Your task to perform on an android device: turn on the 12-hour format for clock Image 0: 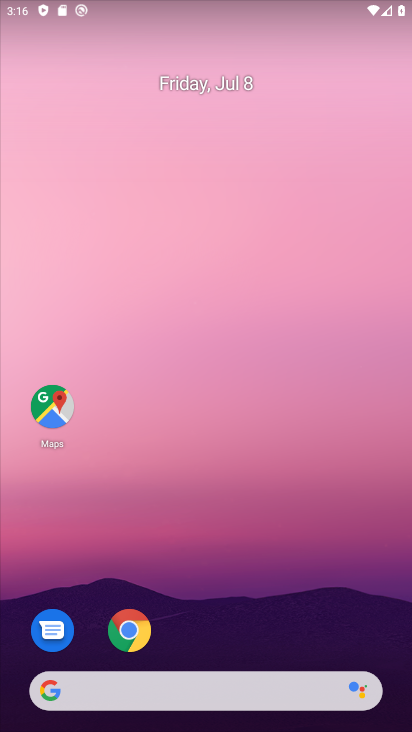
Step 0: drag from (205, 661) to (203, 74)
Your task to perform on an android device: turn on the 12-hour format for clock Image 1: 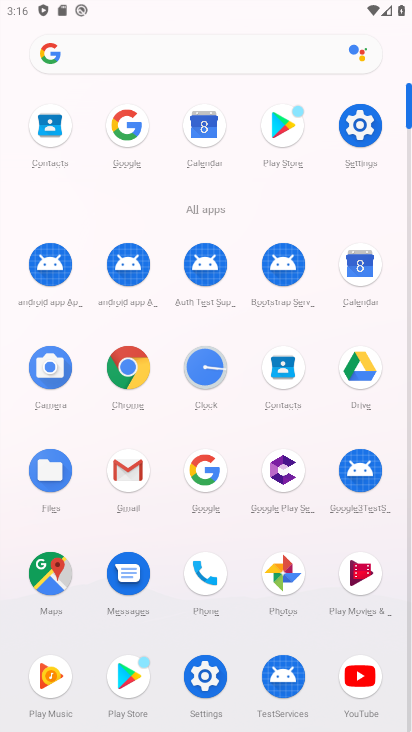
Step 1: click (204, 366)
Your task to perform on an android device: turn on the 12-hour format for clock Image 2: 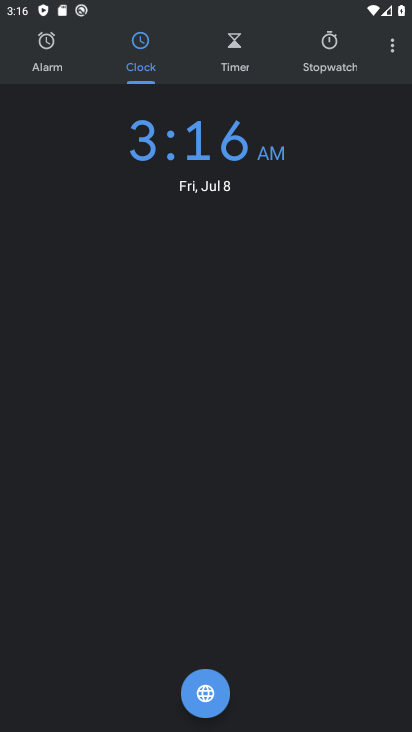
Step 2: click (395, 47)
Your task to perform on an android device: turn on the 12-hour format for clock Image 3: 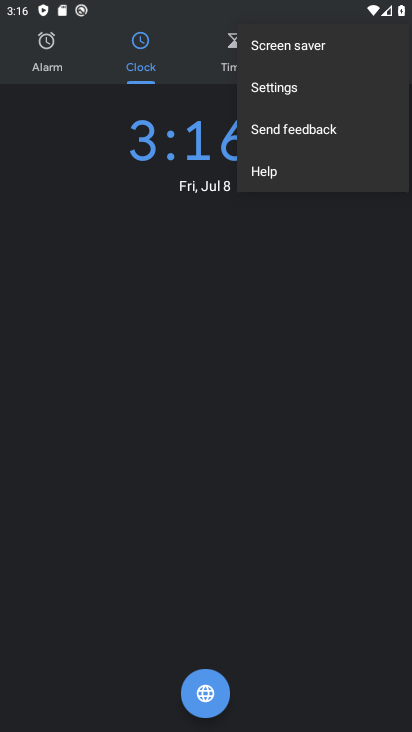
Step 3: click (291, 91)
Your task to perform on an android device: turn on the 12-hour format for clock Image 4: 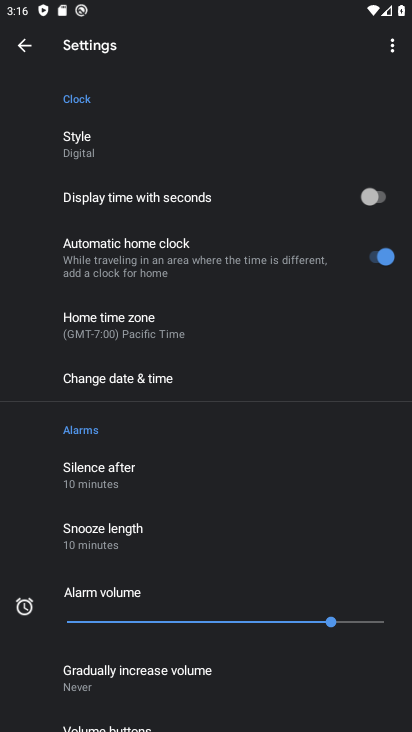
Step 4: click (152, 374)
Your task to perform on an android device: turn on the 12-hour format for clock Image 5: 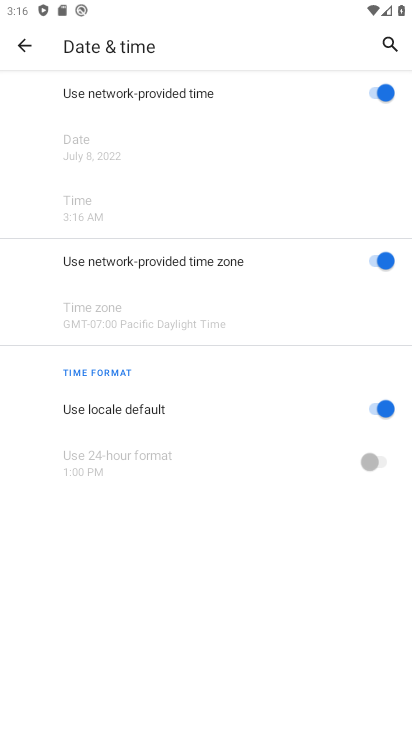
Step 5: task complete